Your task to perform on an android device: Go to Yahoo.com Image 0: 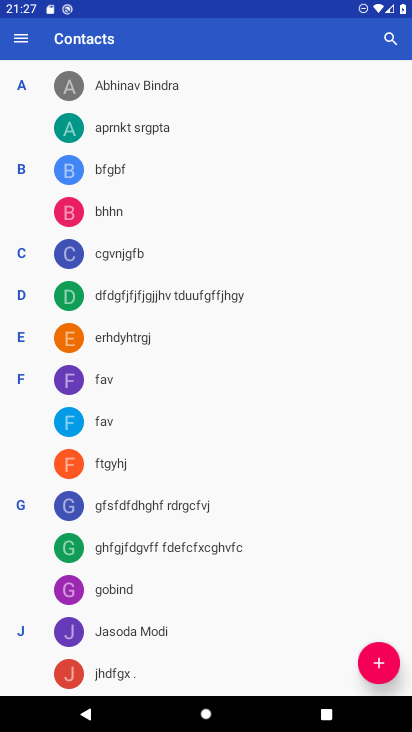
Step 0: press home button
Your task to perform on an android device: Go to Yahoo.com Image 1: 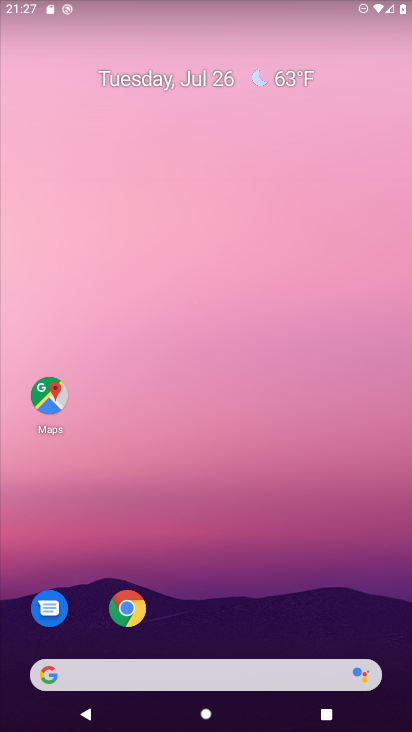
Step 1: click (86, 676)
Your task to perform on an android device: Go to Yahoo.com Image 2: 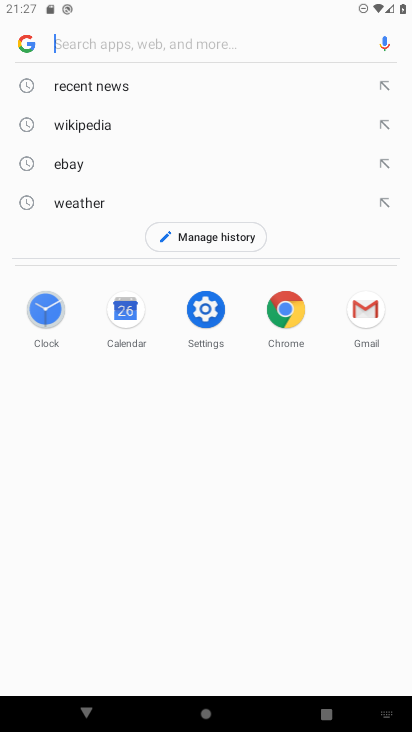
Step 2: type " Yahoo.com"
Your task to perform on an android device: Go to Yahoo.com Image 3: 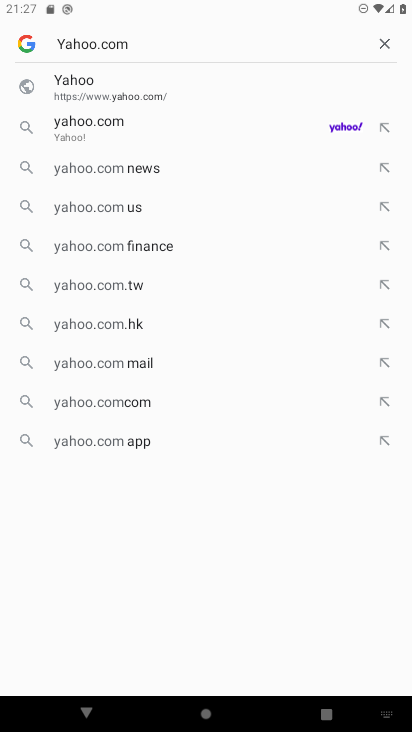
Step 3: click (105, 131)
Your task to perform on an android device: Go to Yahoo.com Image 4: 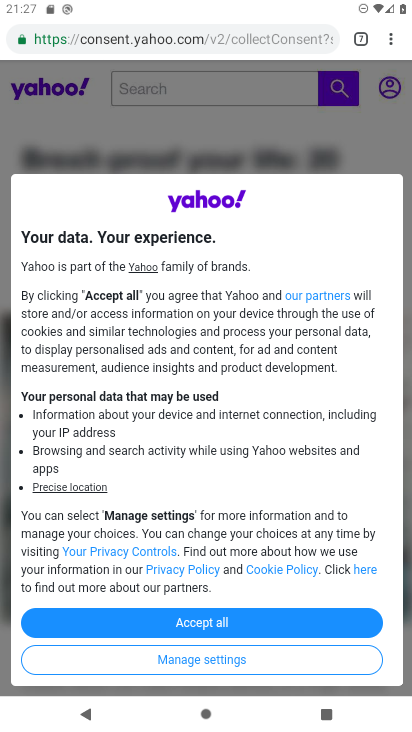
Step 4: task complete